Your task to perform on an android device: refresh tabs in the chrome app Image 0: 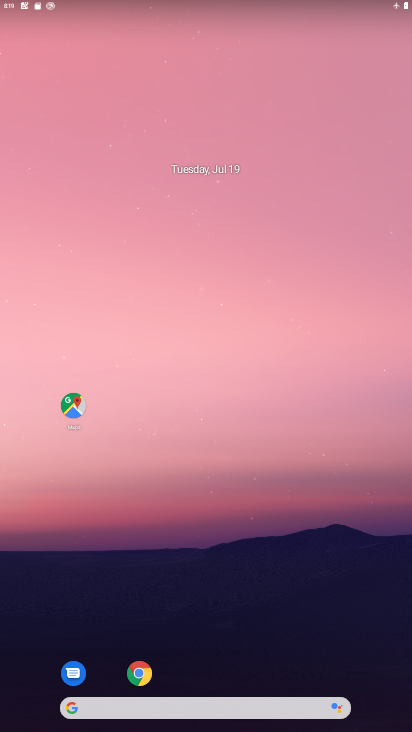
Step 0: drag from (242, 698) to (249, 70)
Your task to perform on an android device: refresh tabs in the chrome app Image 1: 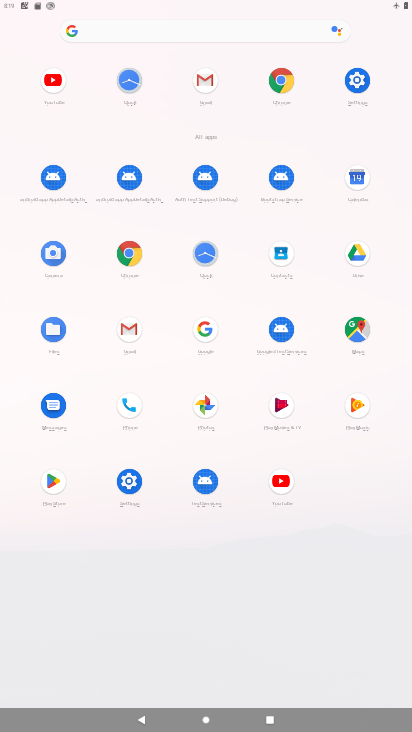
Step 1: click (131, 254)
Your task to perform on an android device: refresh tabs in the chrome app Image 2: 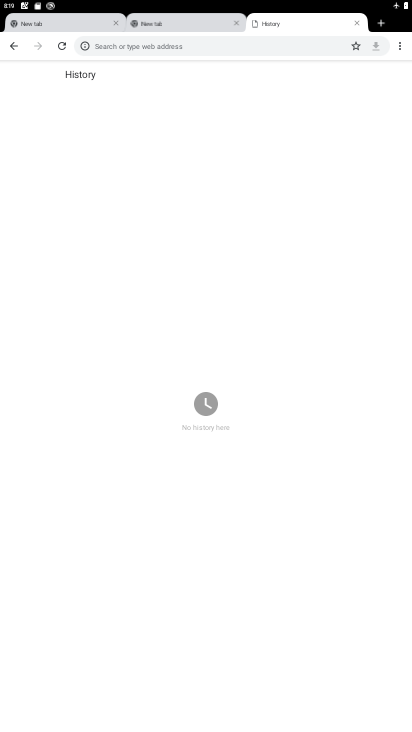
Step 2: click (64, 43)
Your task to perform on an android device: refresh tabs in the chrome app Image 3: 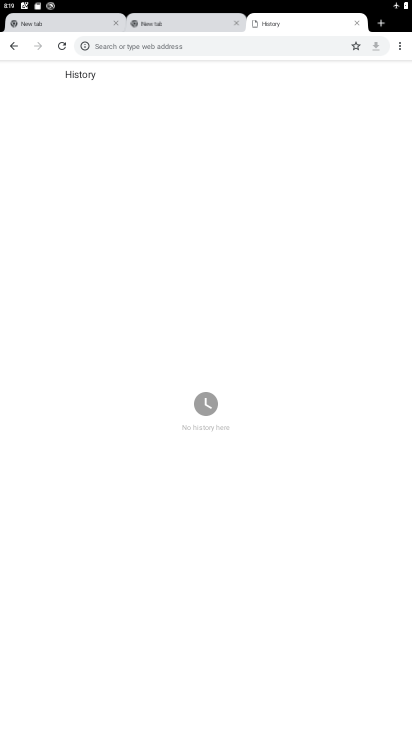
Step 3: click (61, 48)
Your task to perform on an android device: refresh tabs in the chrome app Image 4: 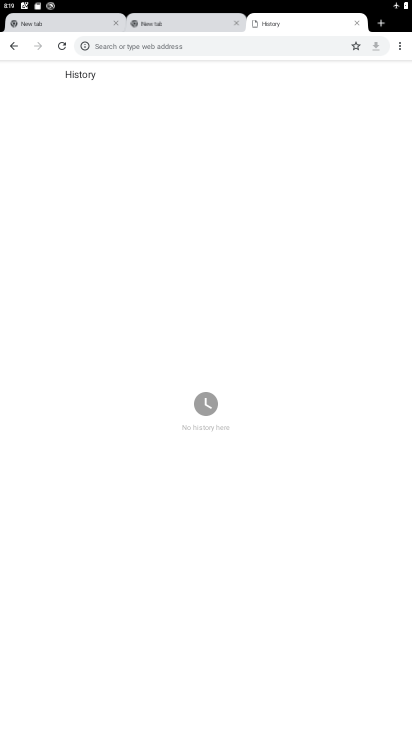
Step 4: task complete